Your task to perform on an android device: Search for "alienware aurora" on costco.com, select the first entry, add it to the cart, then select checkout. Image 0: 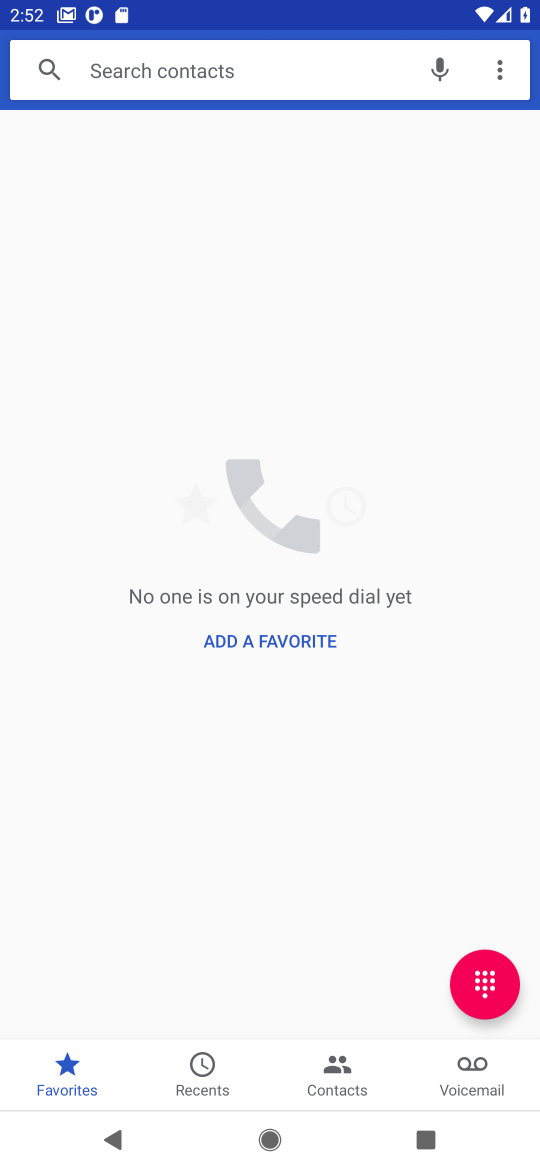
Step 0: press home button
Your task to perform on an android device: Search for "alienware aurora" on costco.com, select the first entry, add it to the cart, then select checkout. Image 1: 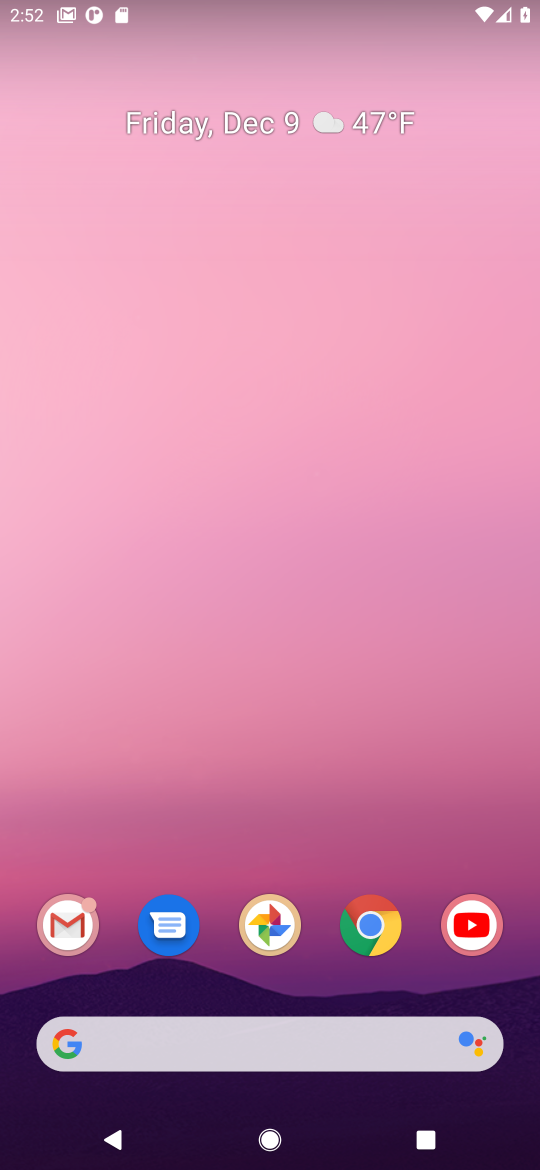
Step 1: click (361, 942)
Your task to perform on an android device: Search for "alienware aurora" on costco.com, select the first entry, add it to the cart, then select checkout. Image 2: 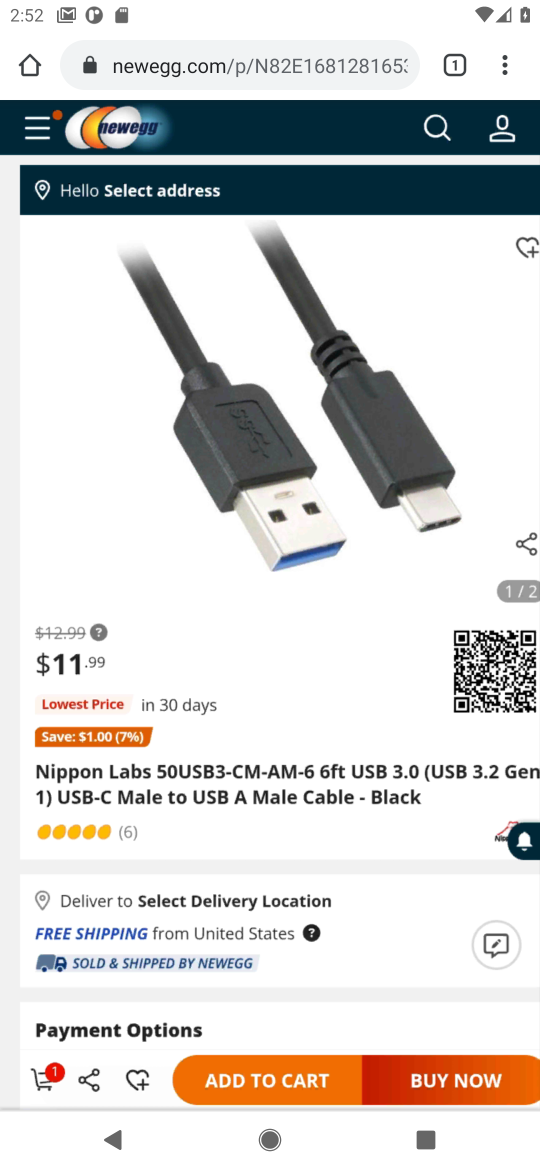
Step 2: click (223, 62)
Your task to perform on an android device: Search for "alienware aurora" on costco.com, select the first entry, add it to the cart, then select checkout. Image 3: 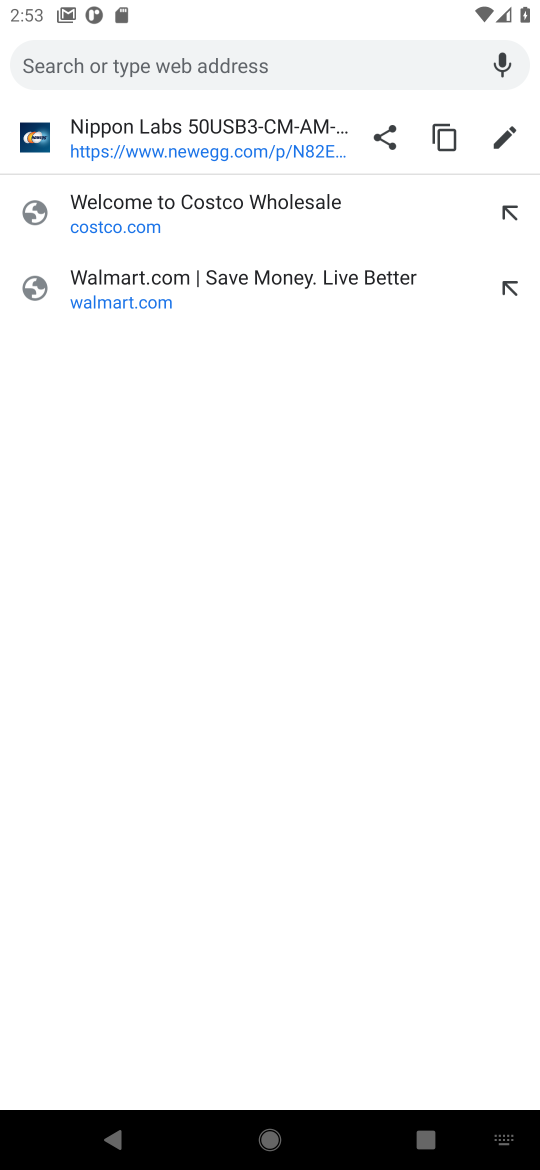
Step 3: type "COSTCO"
Your task to perform on an android device: Search for "alienware aurora" on costco.com, select the first entry, add it to the cart, then select checkout. Image 4: 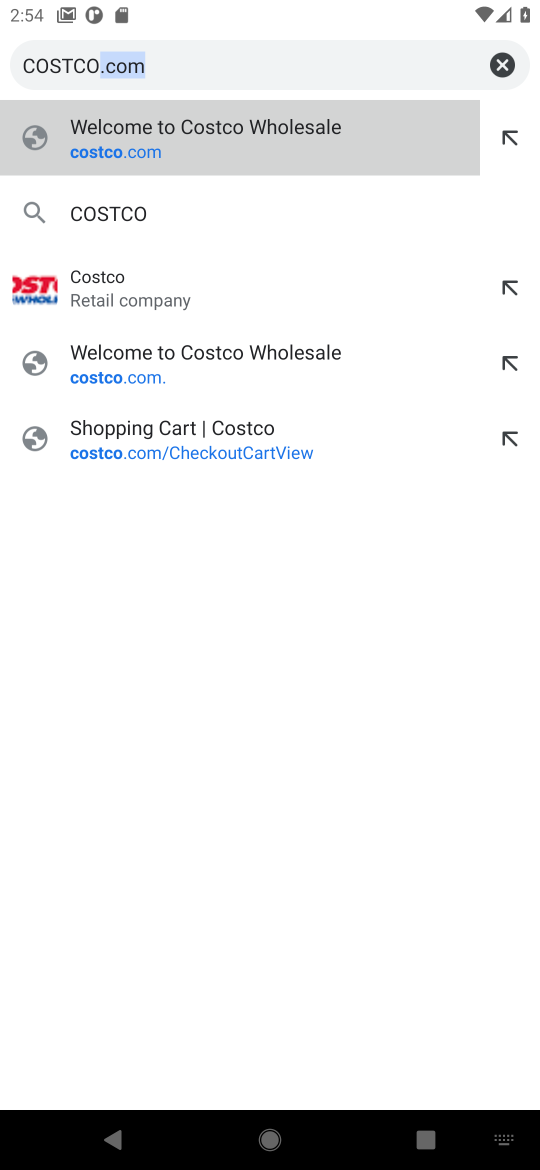
Step 4: click (219, 142)
Your task to perform on an android device: Search for "alienware aurora" on costco.com, select the first entry, add it to the cart, then select checkout. Image 5: 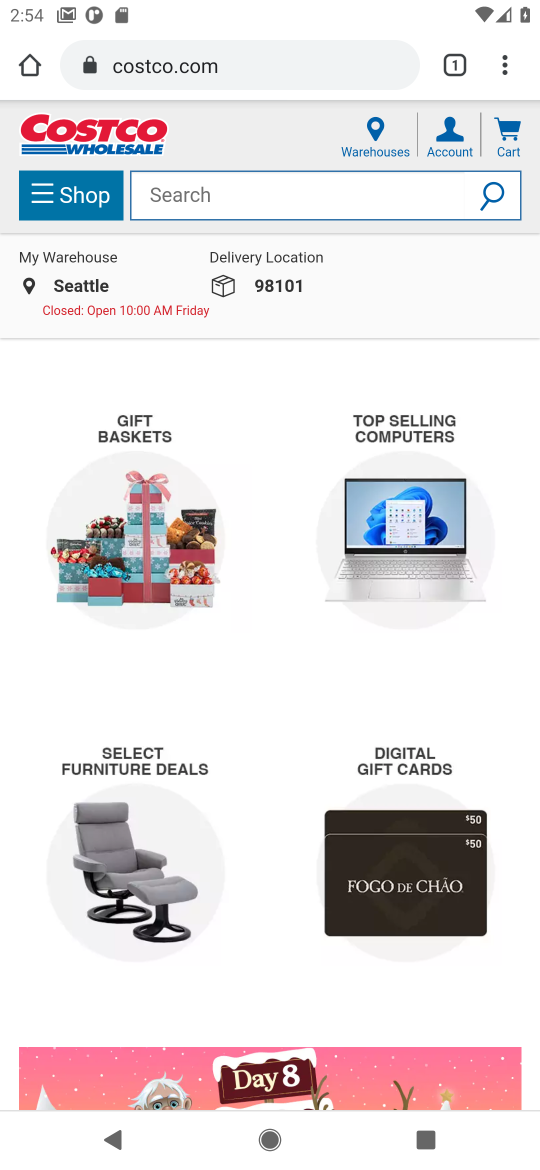
Step 5: click (375, 195)
Your task to perform on an android device: Search for "alienware aurora" on costco.com, select the first entry, add it to the cart, then select checkout. Image 6: 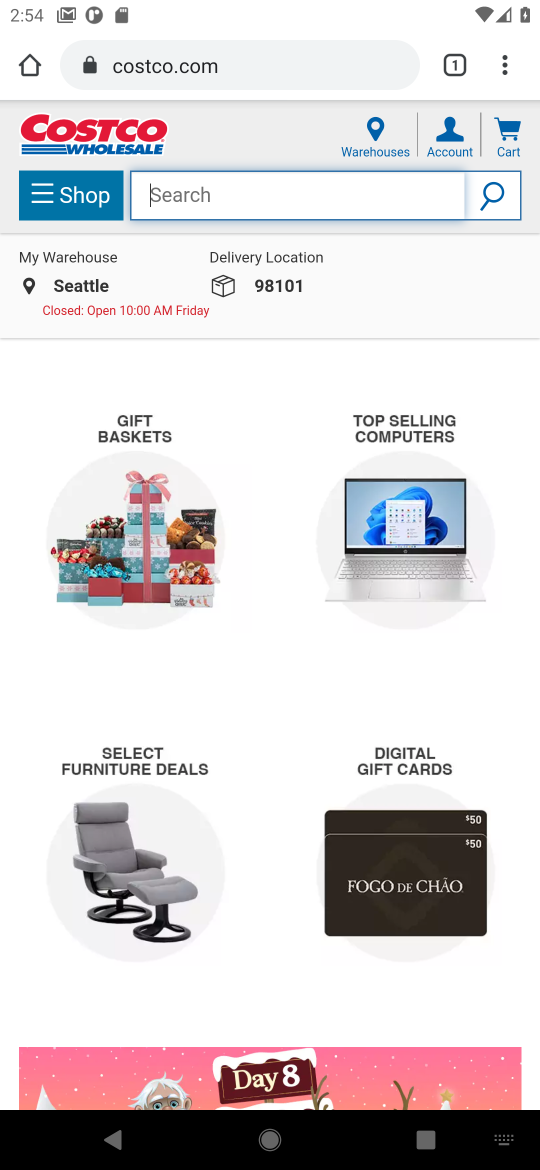
Step 6: type "alienware aurora"
Your task to perform on an android device: Search for "alienware aurora" on costco.com, select the first entry, add it to the cart, then select checkout. Image 7: 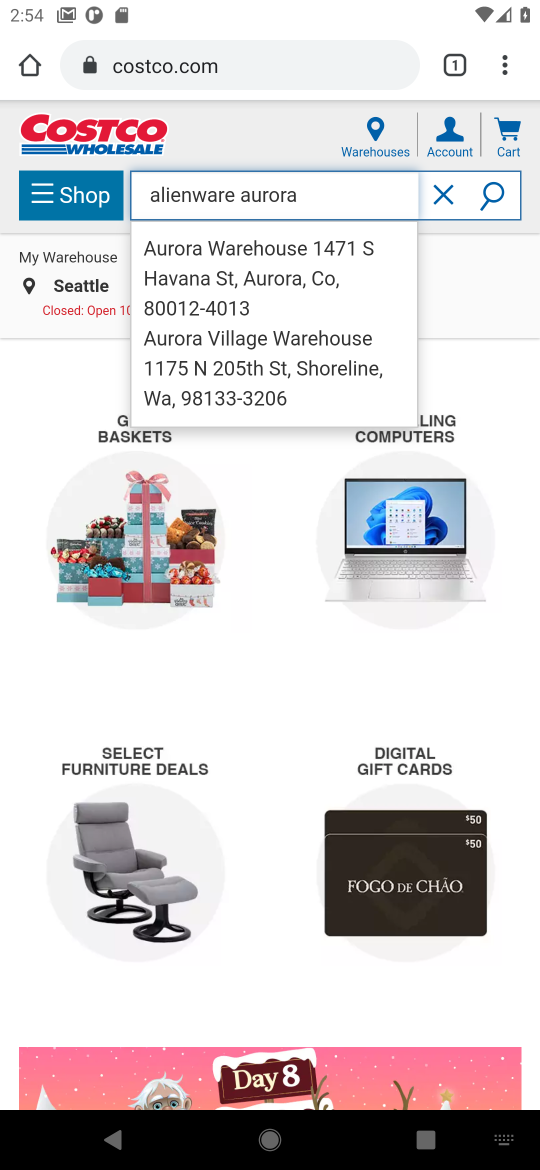
Step 7: click (284, 241)
Your task to perform on an android device: Search for "alienware aurora" on costco.com, select the first entry, add it to the cart, then select checkout. Image 8: 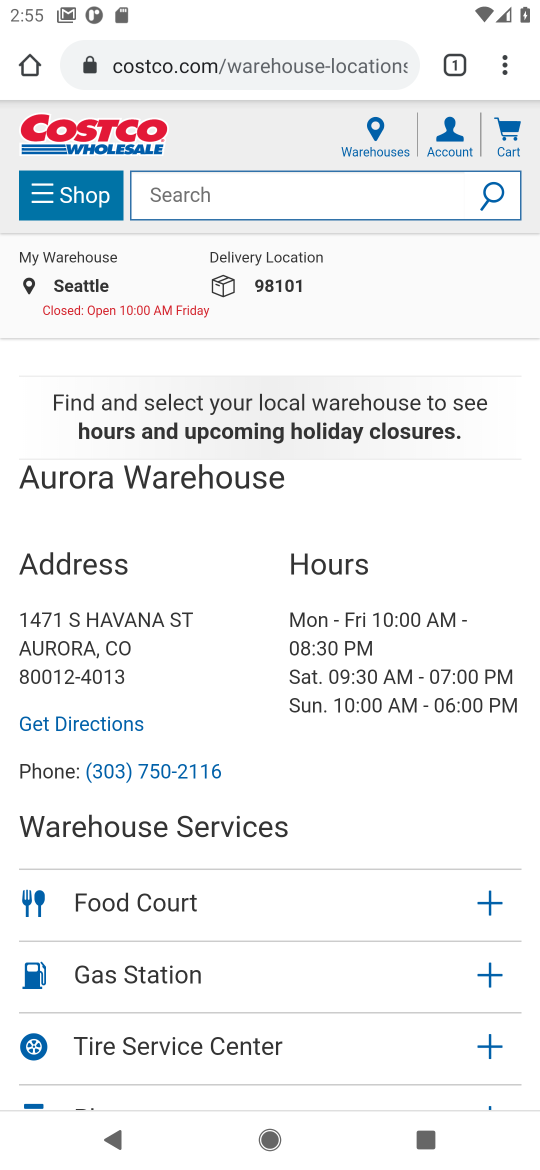
Step 8: task complete